Your task to perform on an android device: toggle location history Image 0: 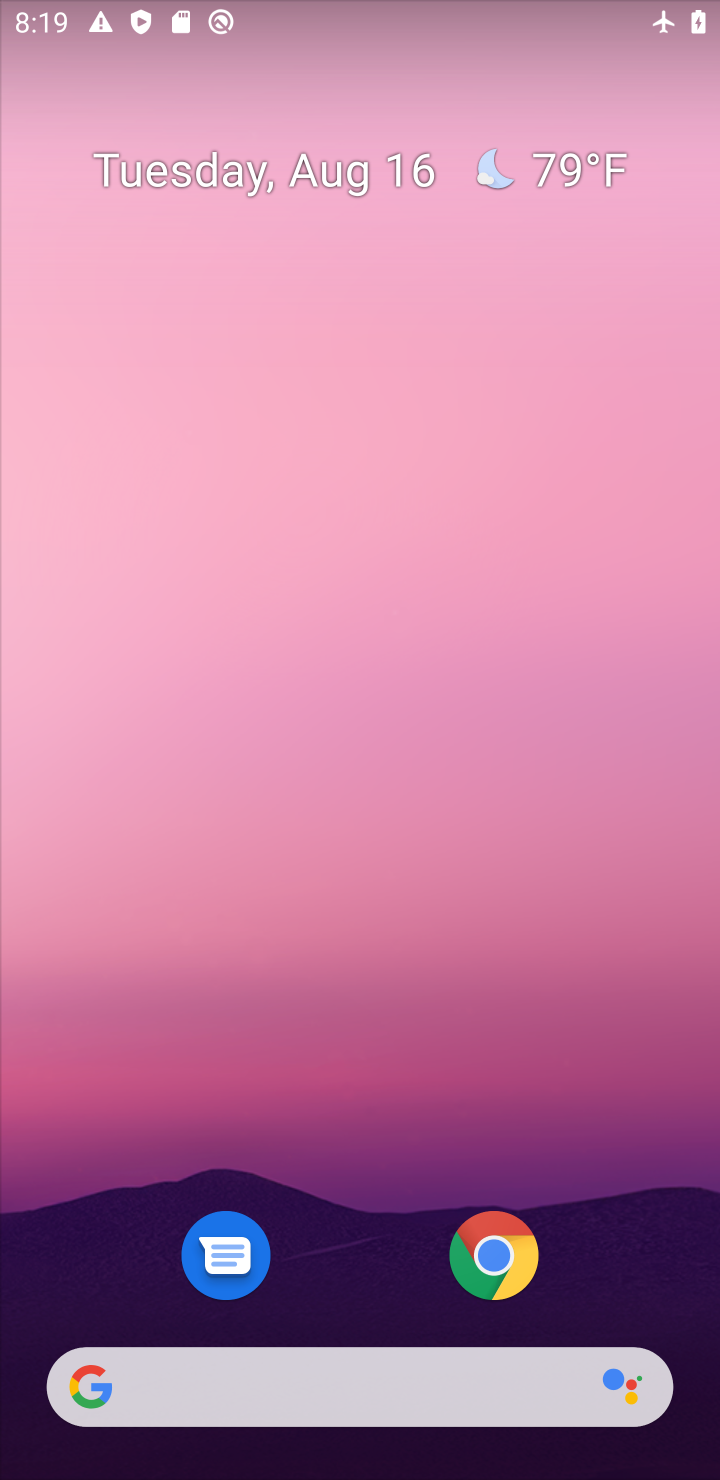
Step 0: drag from (316, 668) to (316, 119)
Your task to perform on an android device: toggle location history Image 1: 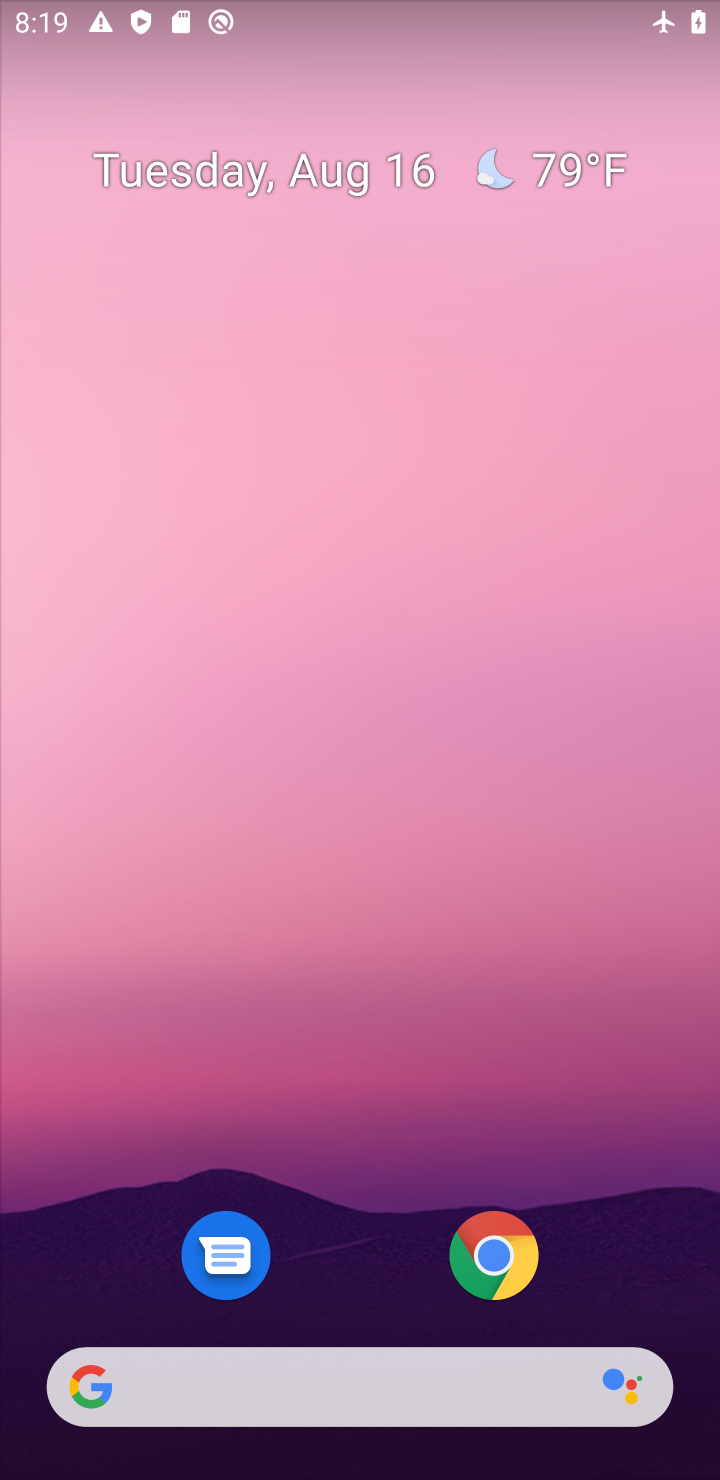
Step 1: drag from (363, 1392) to (405, 128)
Your task to perform on an android device: toggle location history Image 2: 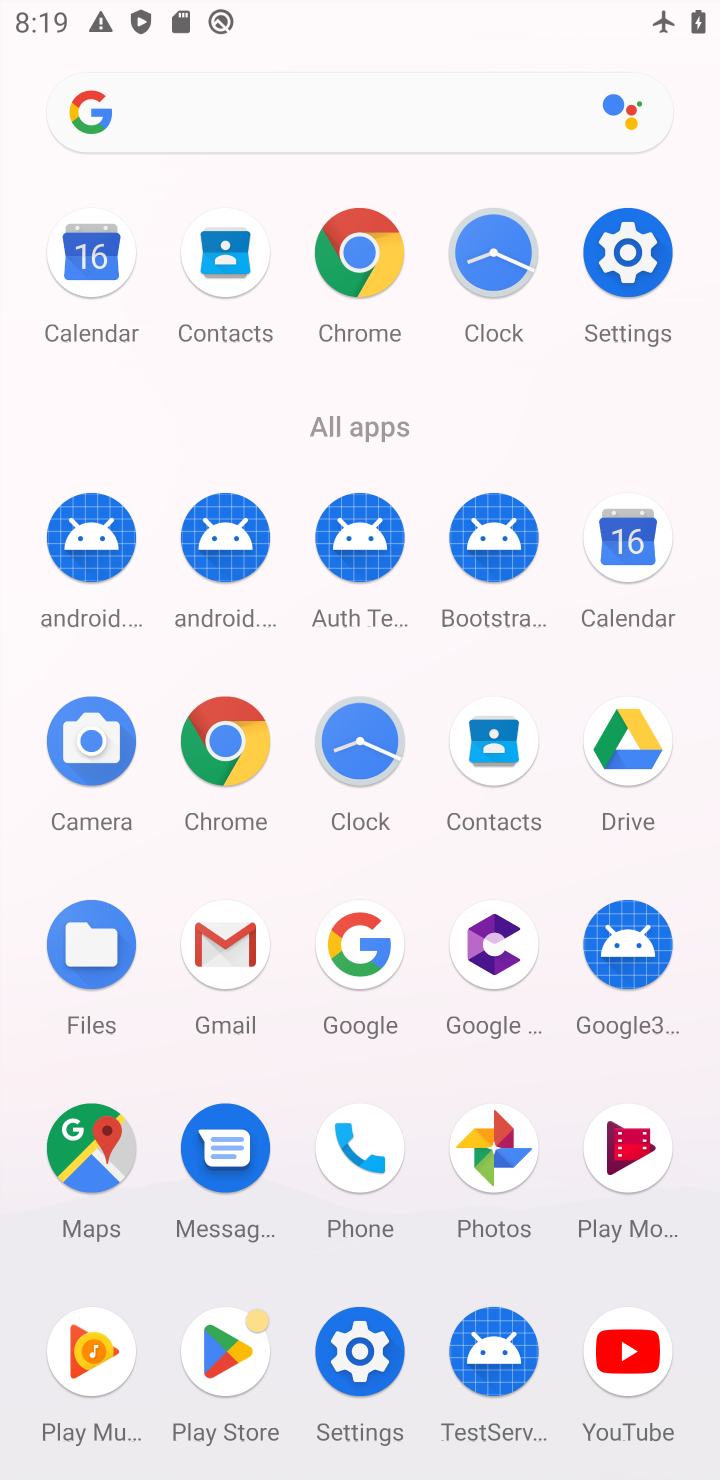
Step 2: click (630, 267)
Your task to perform on an android device: toggle location history Image 3: 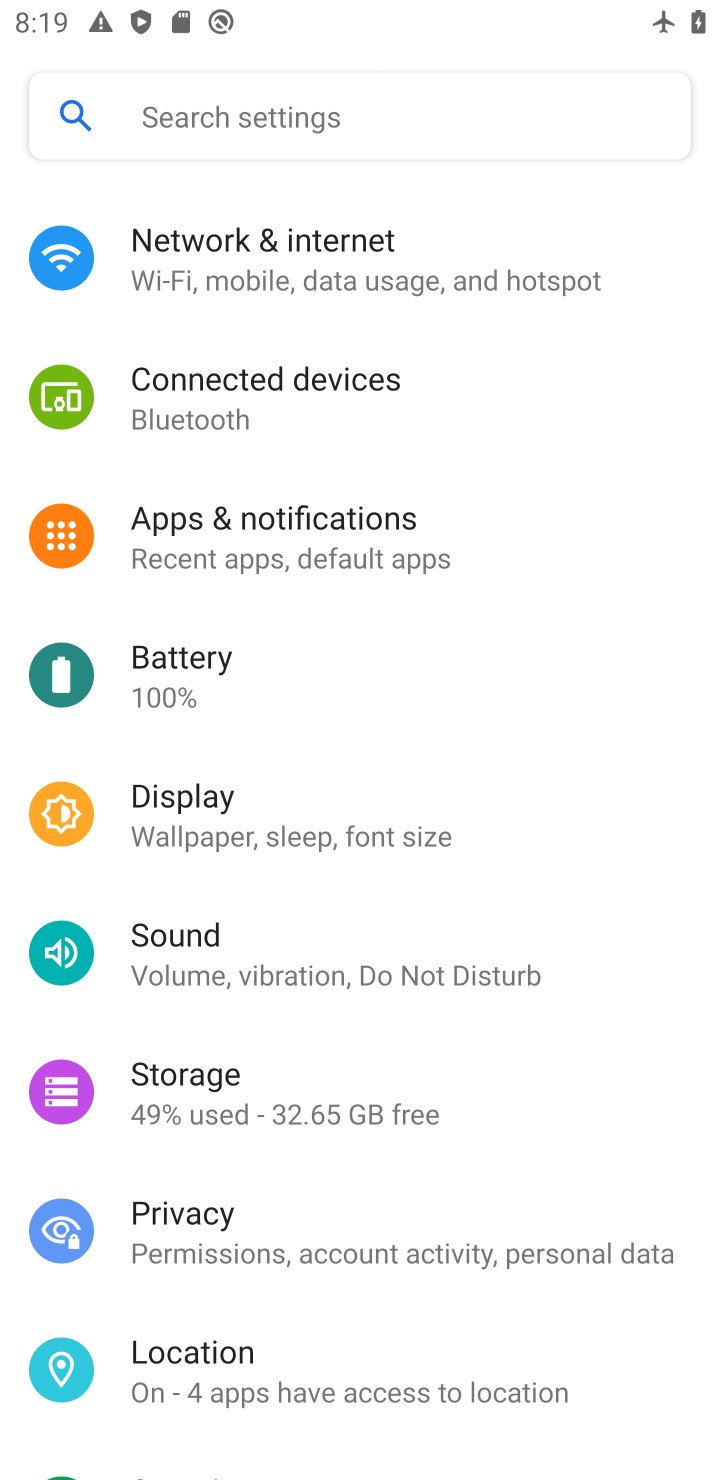
Step 3: click (279, 1355)
Your task to perform on an android device: toggle location history Image 4: 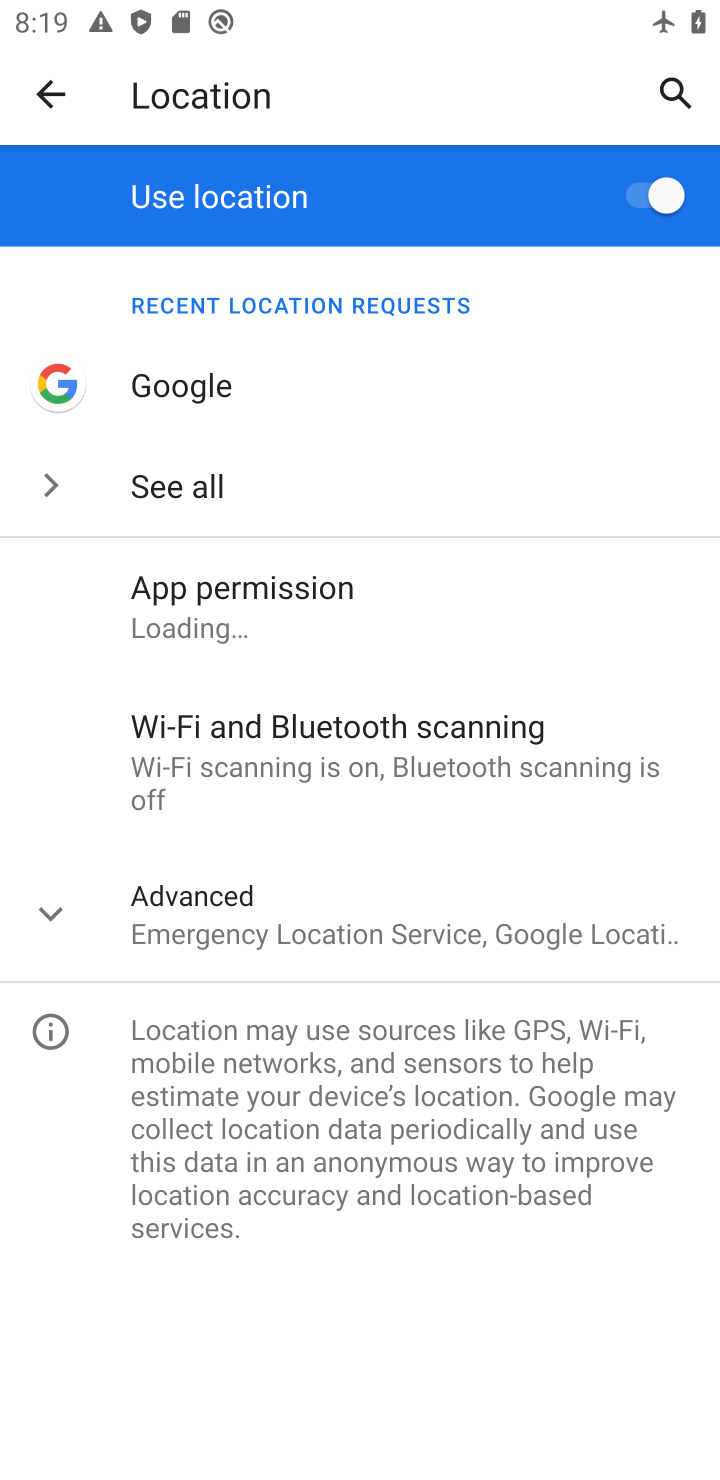
Step 4: click (316, 910)
Your task to perform on an android device: toggle location history Image 5: 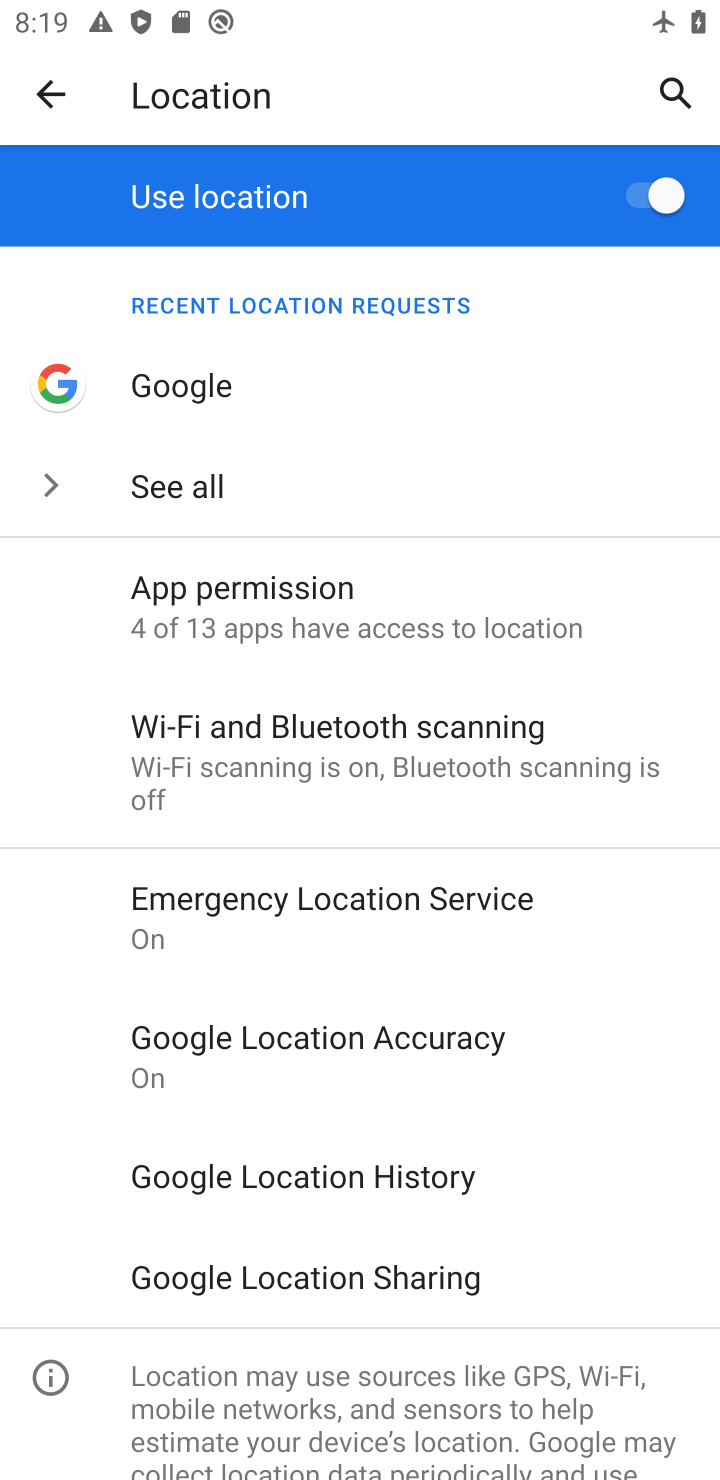
Step 5: click (370, 1182)
Your task to perform on an android device: toggle location history Image 6: 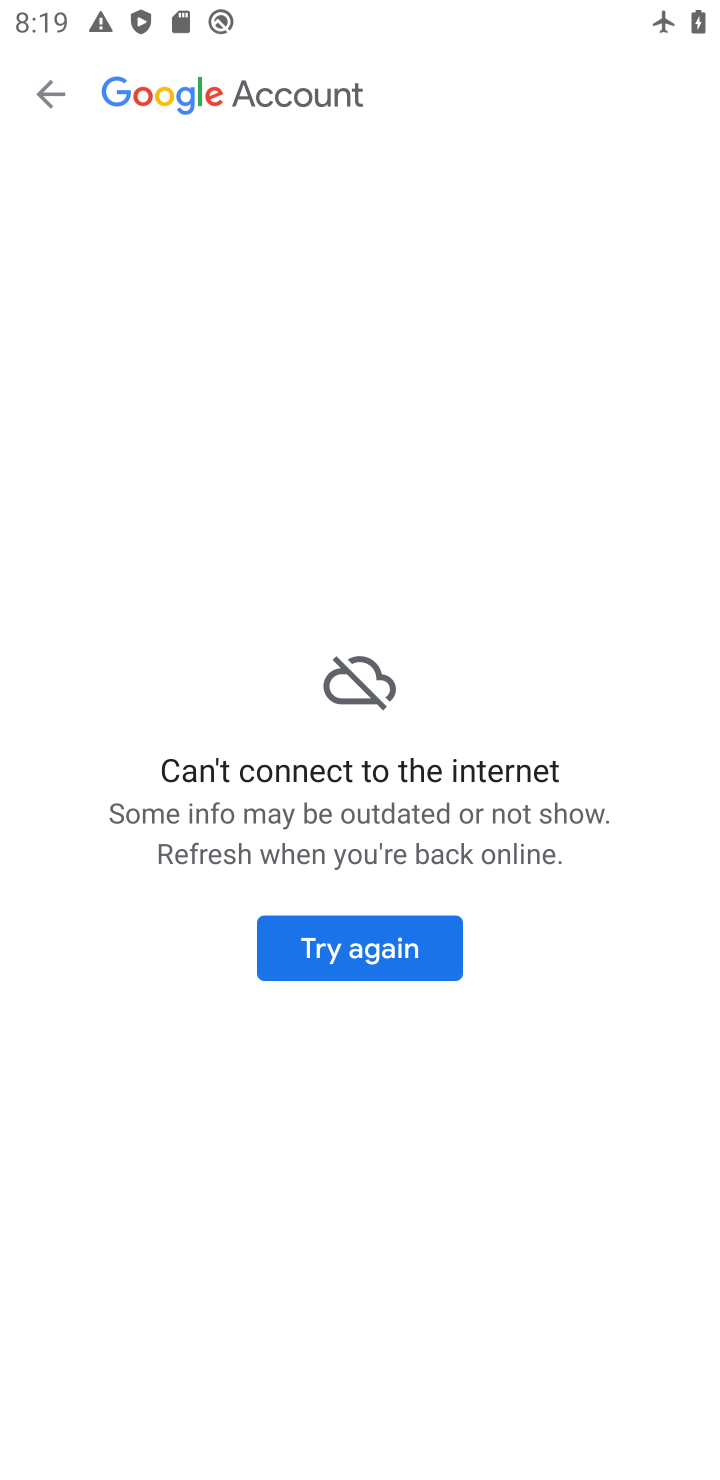
Step 6: task complete